Your task to perform on an android device: refresh tabs in the chrome app Image 0: 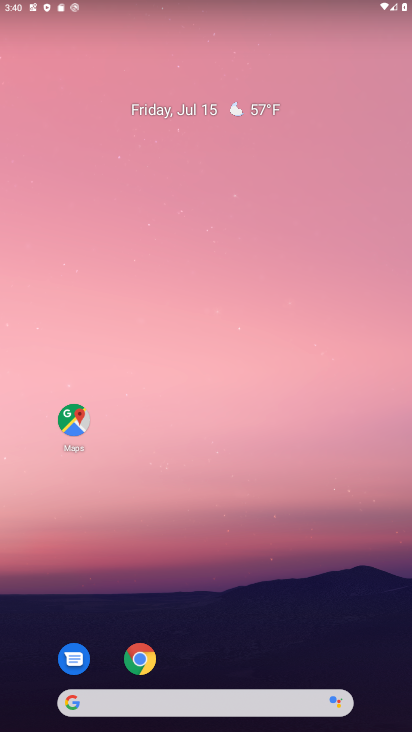
Step 0: click (140, 660)
Your task to perform on an android device: refresh tabs in the chrome app Image 1: 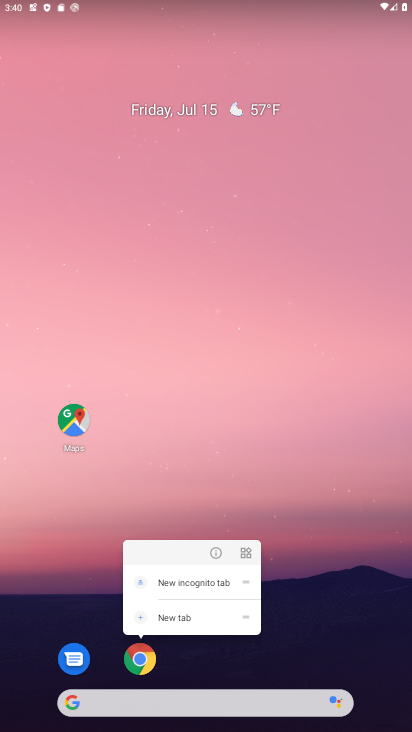
Step 1: click (140, 660)
Your task to perform on an android device: refresh tabs in the chrome app Image 2: 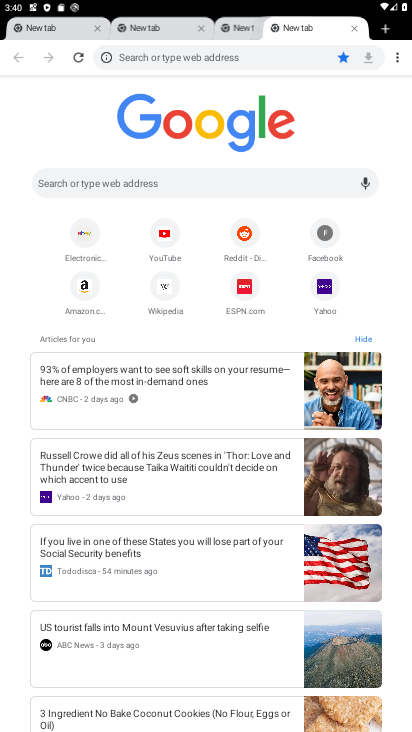
Step 2: click (78, 59)
Your task to perform on an android device: refresh tabs in the chrome app Image 3: 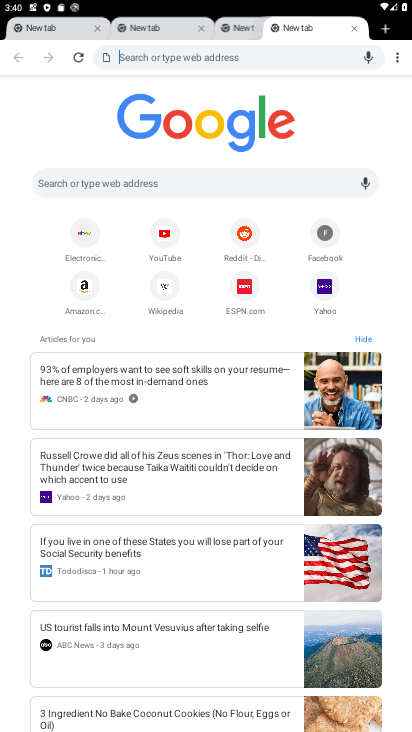
Step 3: task complete